Your task to perform on an android device: Open Yahoo.com Image 0: 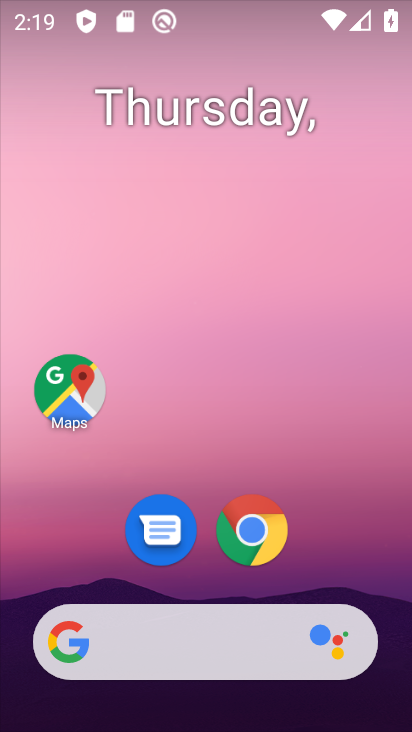
Step 0: click (219, 656)
Your task to perform on an android device: Open Yahoo.com Image 1: 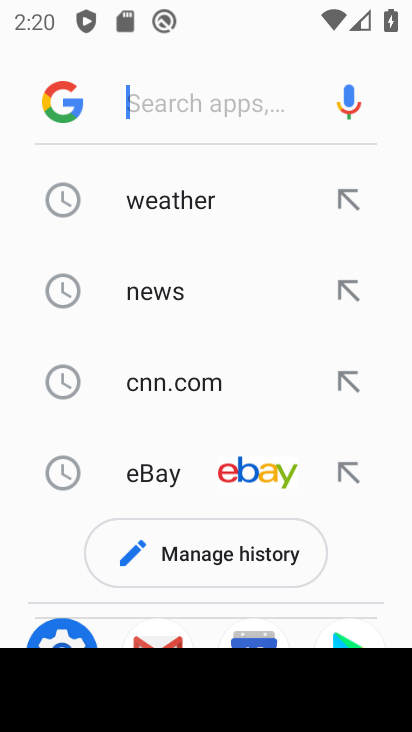
Step 1: type "yahoo.com"
Your task to perform on an android device: Open Yahoo.com Image 2: 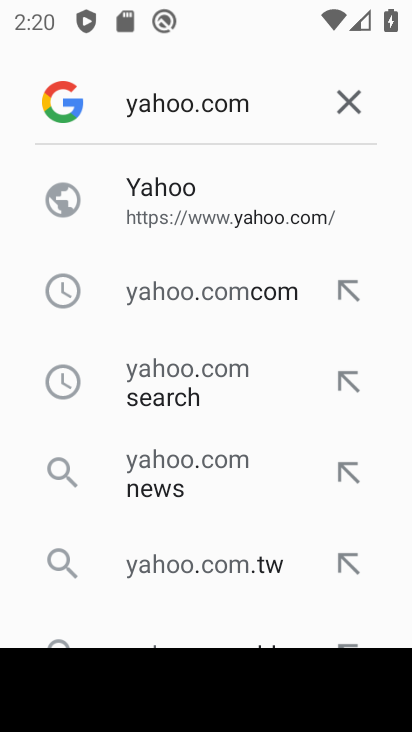
Step 2: click (243, 201)
Your task to perform on an android device: Open Yahoo.com Image 3: 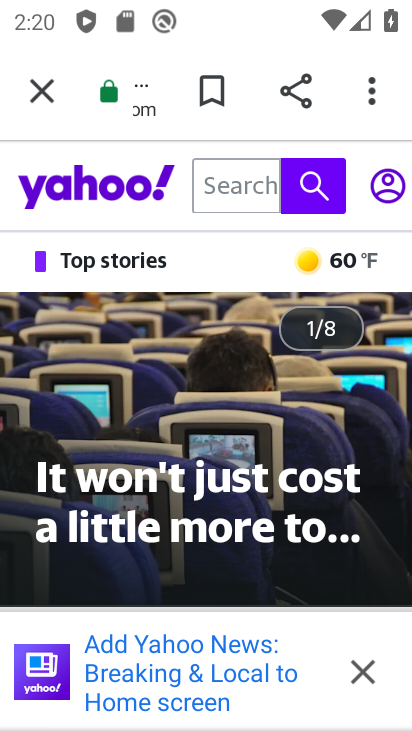
Step 3: task complete